Your task to perform on an android device: check storage Image 0: 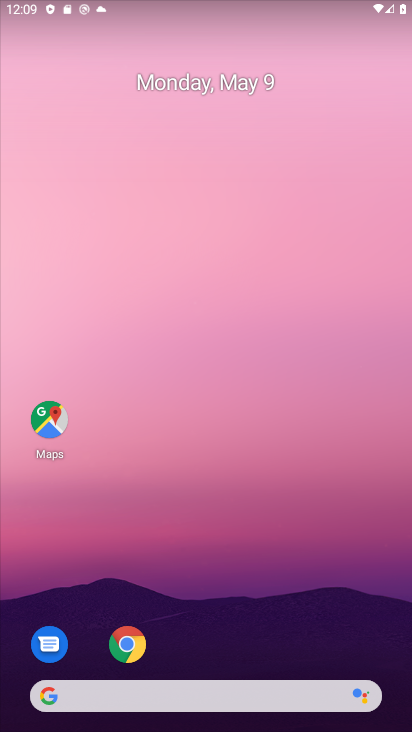
Step 0: click (15, 112)
Your task to perform on an android device: check storage Image 1: 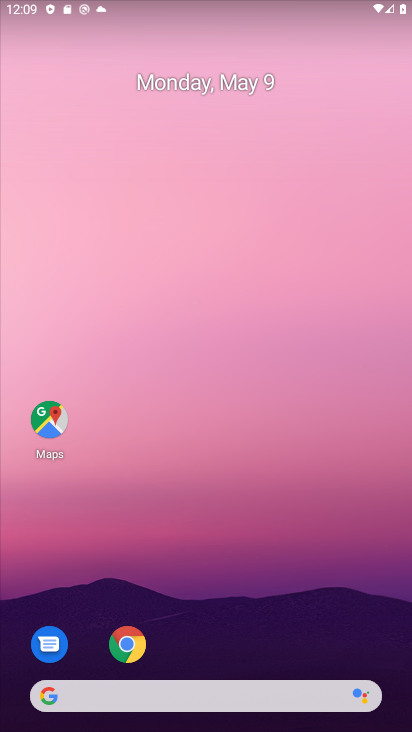
Step 1: drag from (250, 646) to (228, 25)
Your task to perform on an android device: check storage Image 2: 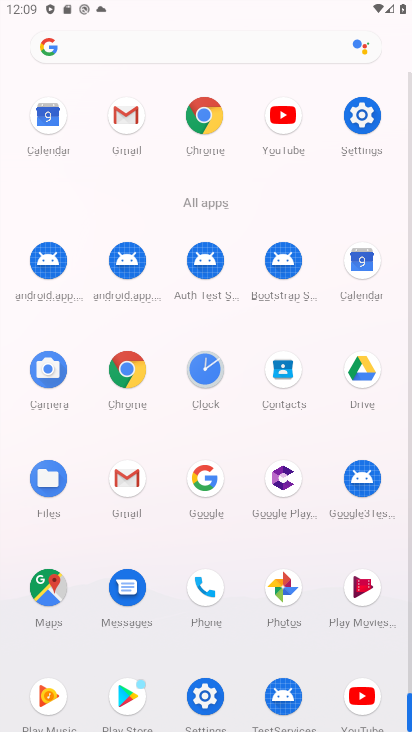
Step 2: click (199, 687)
Your task to perform on an android device: check storage Image 3: 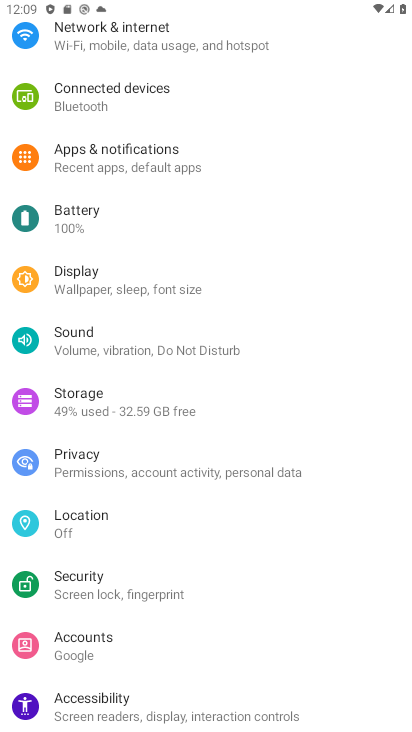
Step 3: drag from (179, 670) to (177, 225)
Your task to perform on an android device: check storage Image 4: 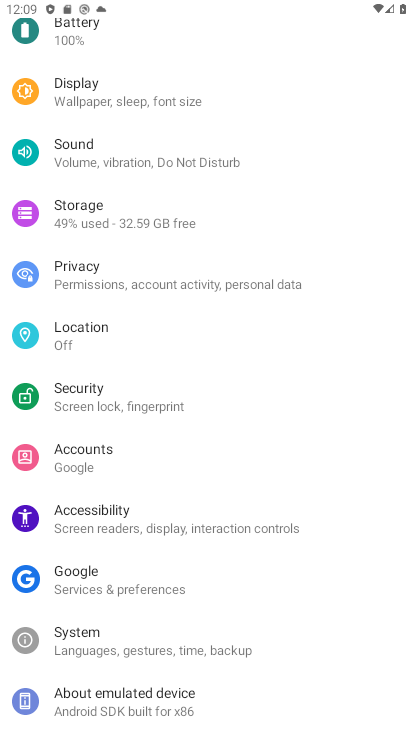
Step 4: click (107, 210)
Your task to perform on an android device: check storage Image 5: 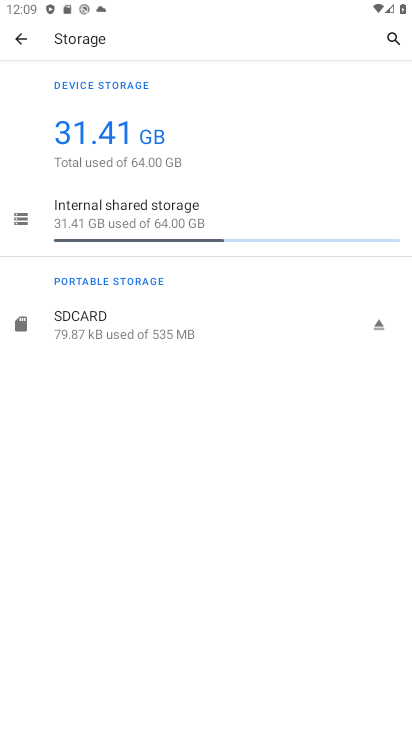
Step 5: task complete